Your task to perform on an android device: Add macbook air to the cart on target, then select checkout. Image 0: 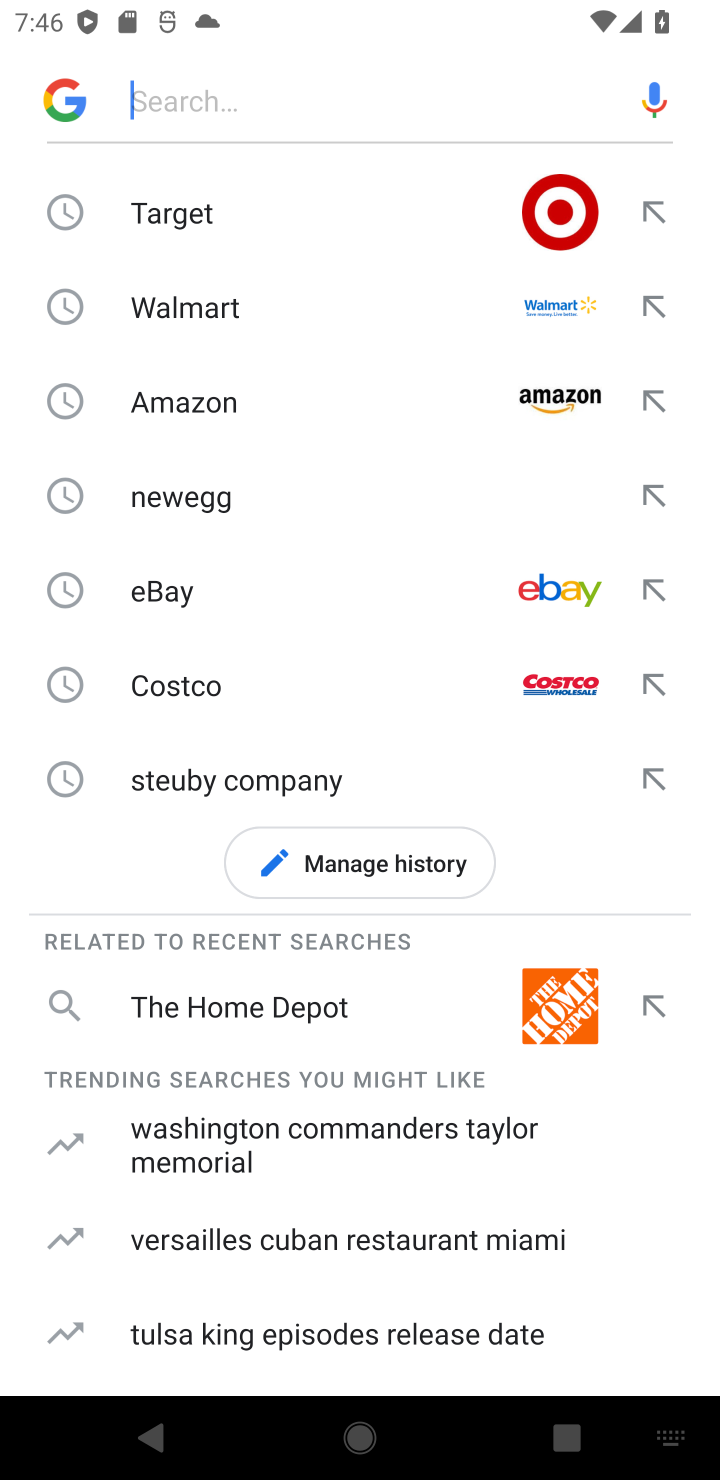
Step 0: click (191, 242)
Your task to perform on an android device: Add macbook air to the cart on target, then select checkout. Image 1: 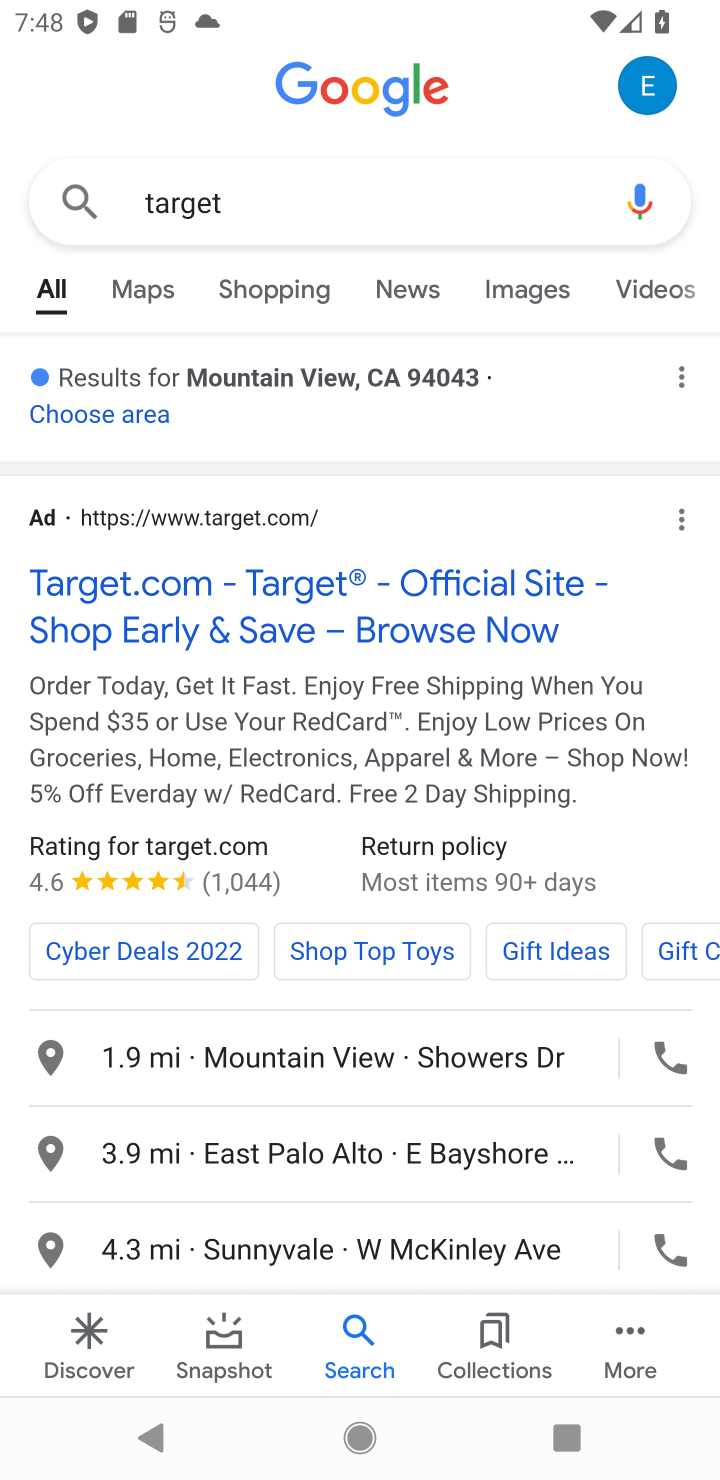
Step 1: click (122, 663)
Your task to perform on an android device: Add macbook air to the cart on target, then select checkout. Image 2: 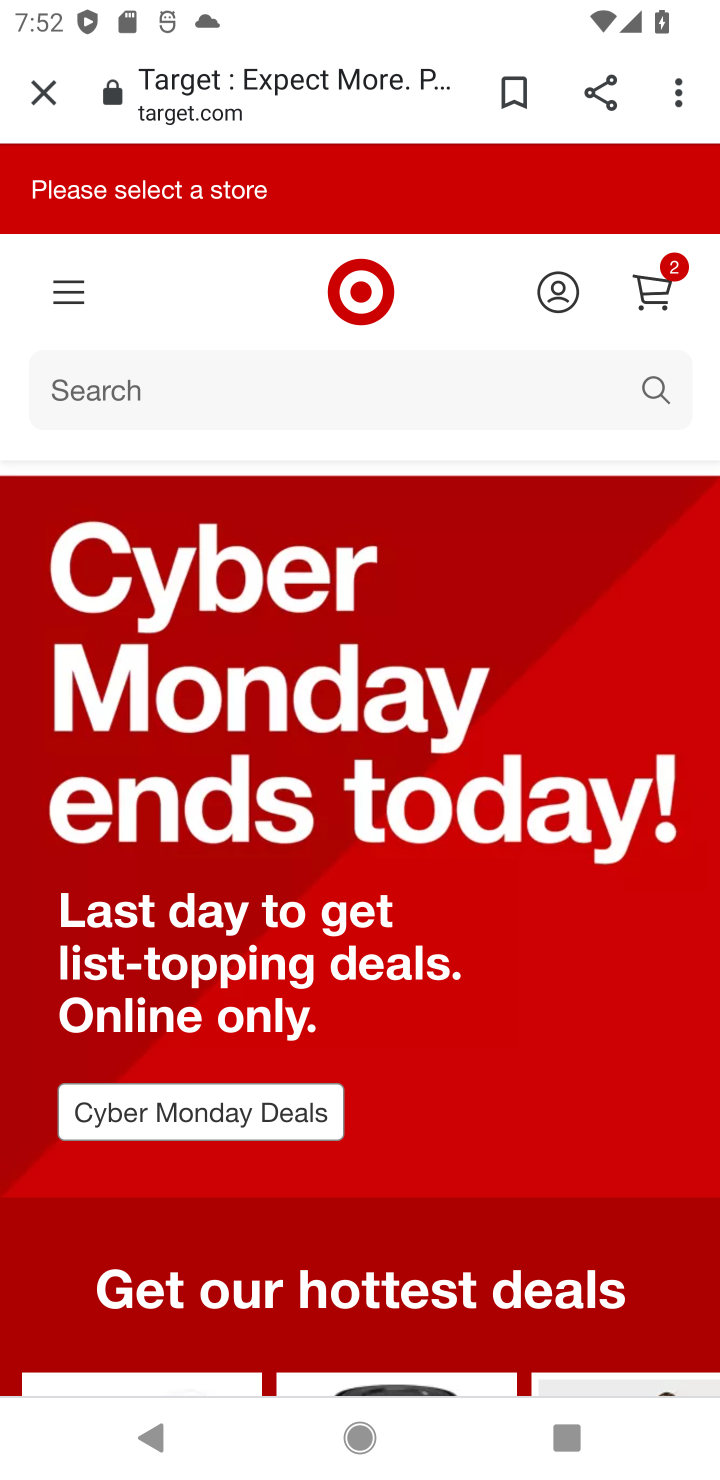
Step 2: click (171, 391)
Your task to perform on an android device: Add macbook air to the cart on target, then select checkout. Image 3: 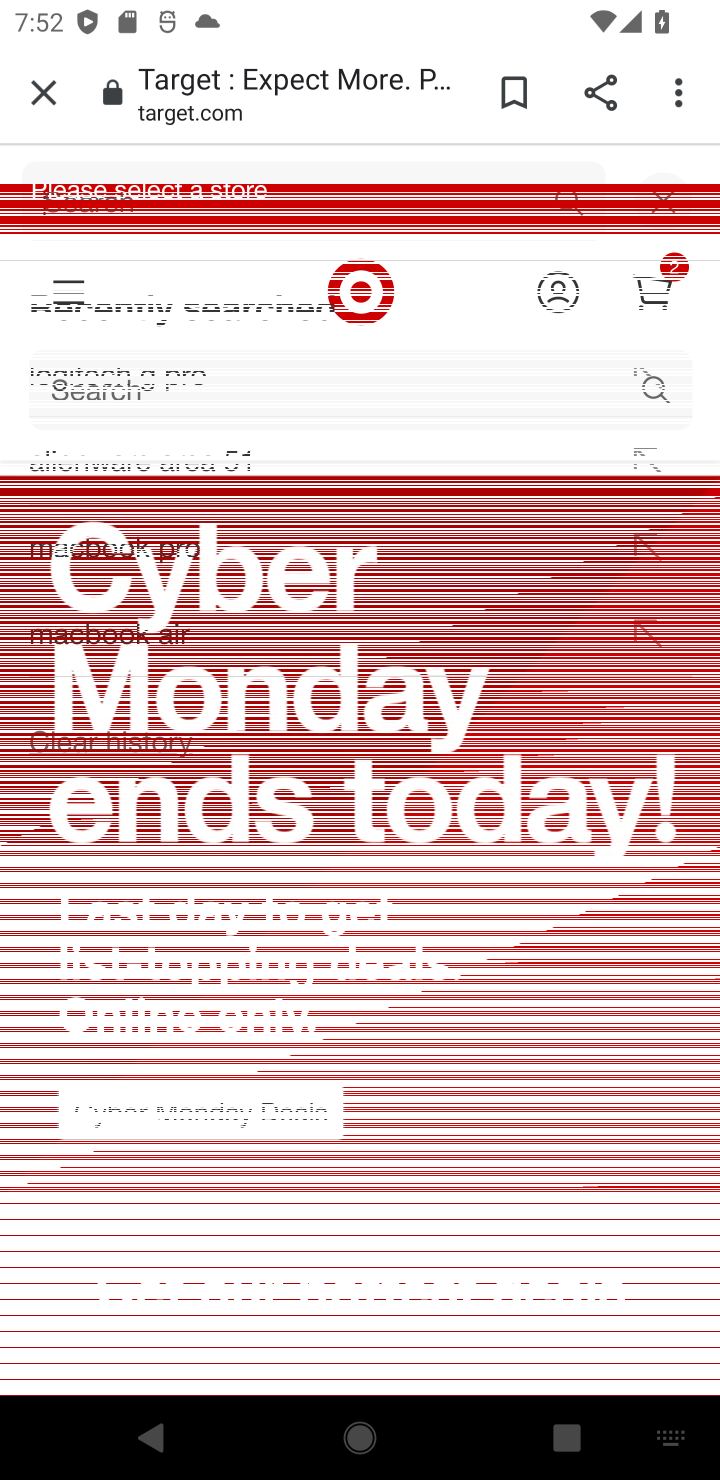
Step 3: click (661, 225)
Your task to perform on an android device: Add macbook air to the cart on target, then select checkout. Image 4: 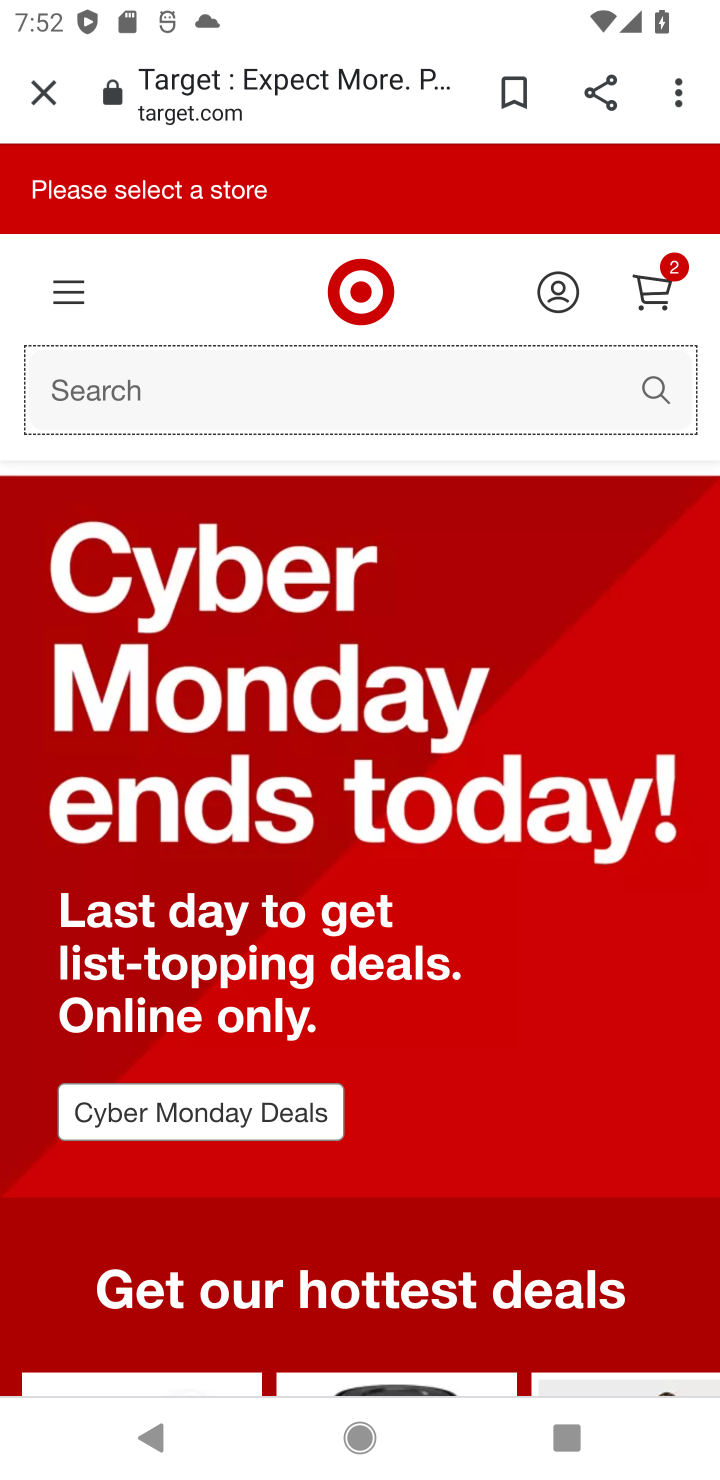
Step 4: click (661, 283)
Your task to perform on an android device: Add macbook air to the cart on target, then select checkout. Image 5: 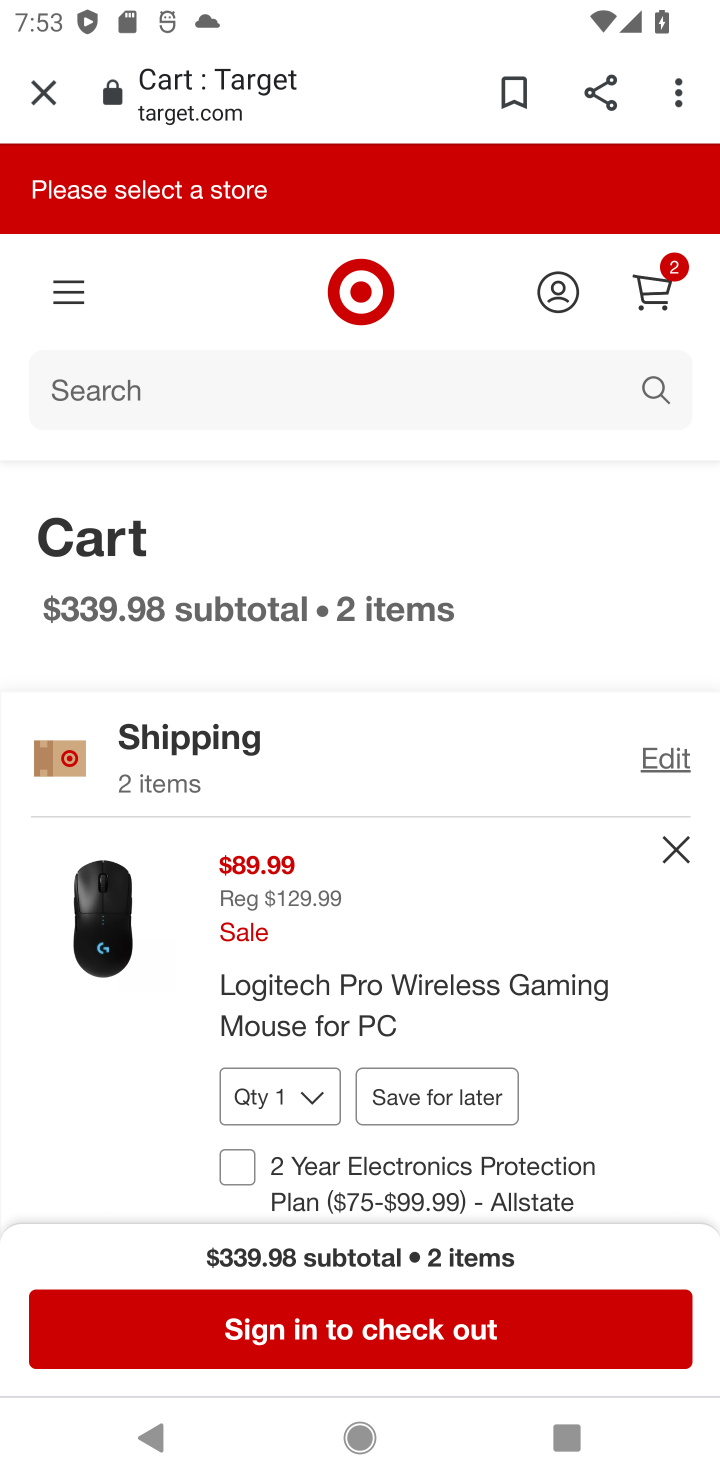
Step 5: click (325, 1334)
Your task to perform on an android device: Add macbook air to the cart on target, then select checkout. Image 6: 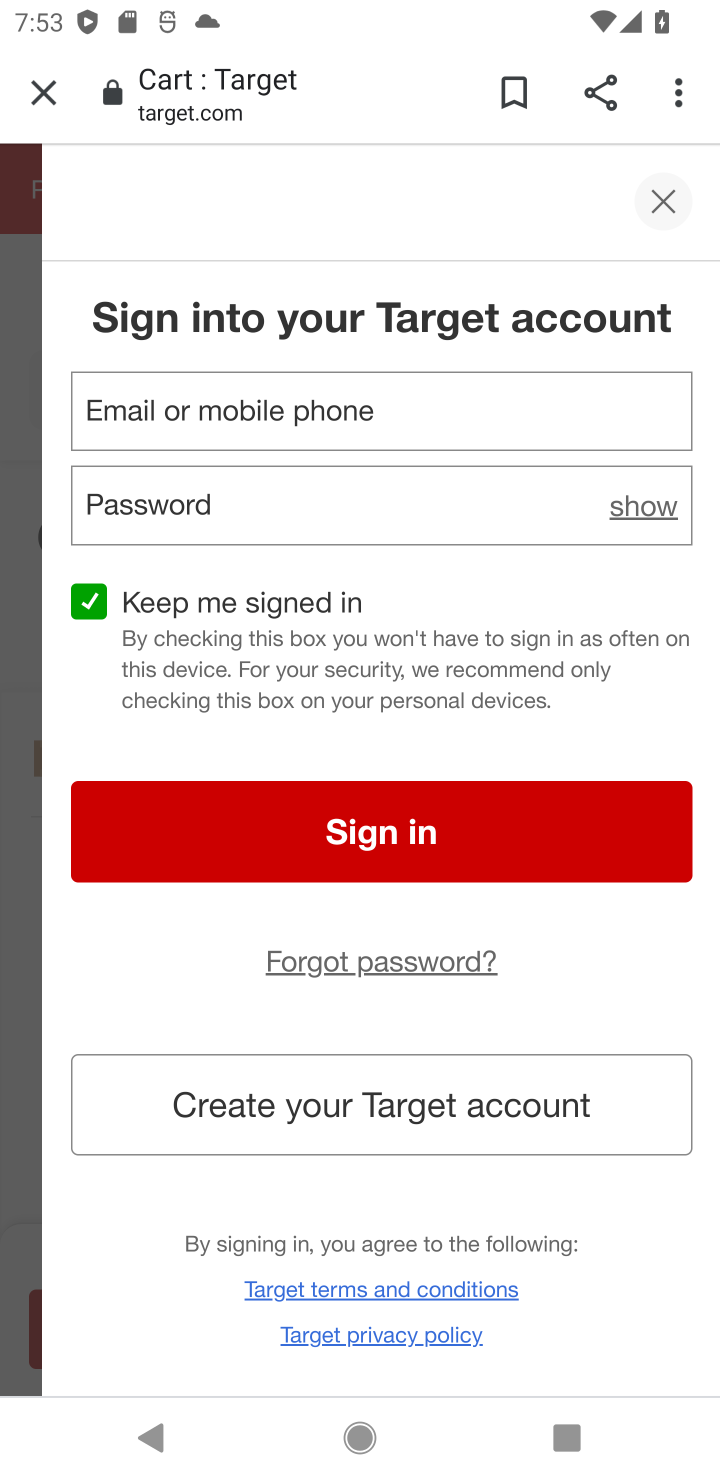
Step 6: task complete